Your task to perform on an android device: Clear all items from cart on target.com. Image 0: 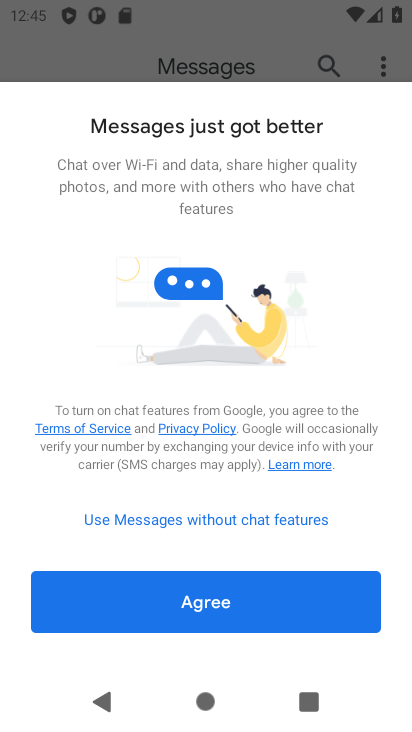
Step 0: press home button
Your task to perform on an android device: Clear all items from cart on target.com. Image 1: 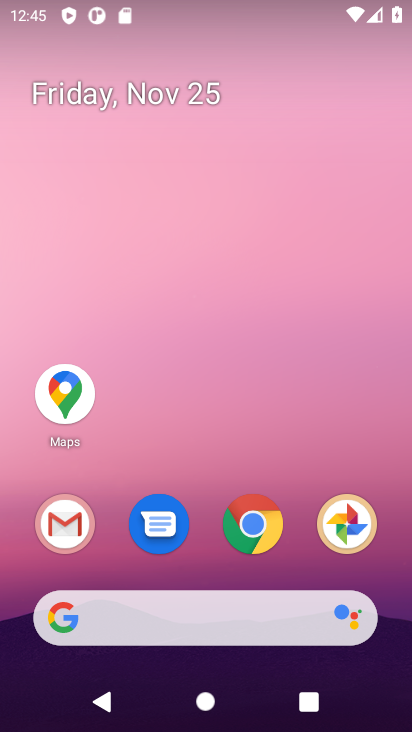
Step 1: click (265, 530)
Your task to perform on an android device: Clear all items from cart on target.com. Image 2: 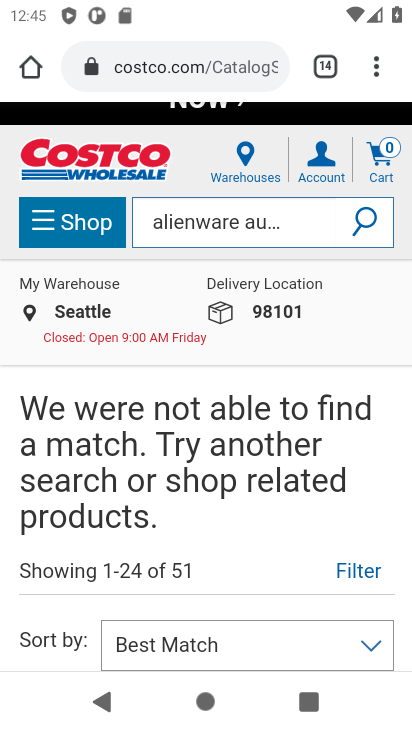
Step 2: click (187, 59)
Your task to perform on an android device: Clear all items from cart on target.com. Image 3: 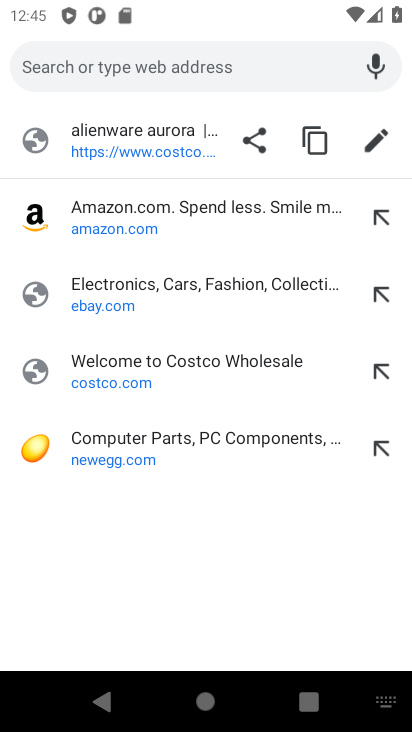
Step 3: type "target.com"
Your task to perform on an android device: Clear all items from cart on target.com. Image 4: 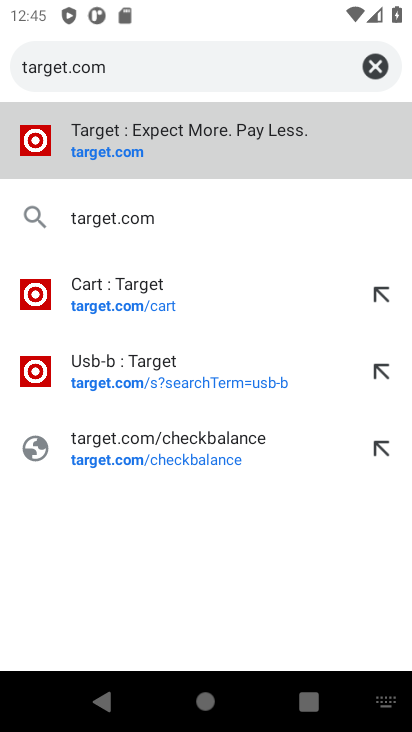
Step 4: click (102, 160)
Your task to perform on an android device: Clear all items from cart on target.com. Image 5: 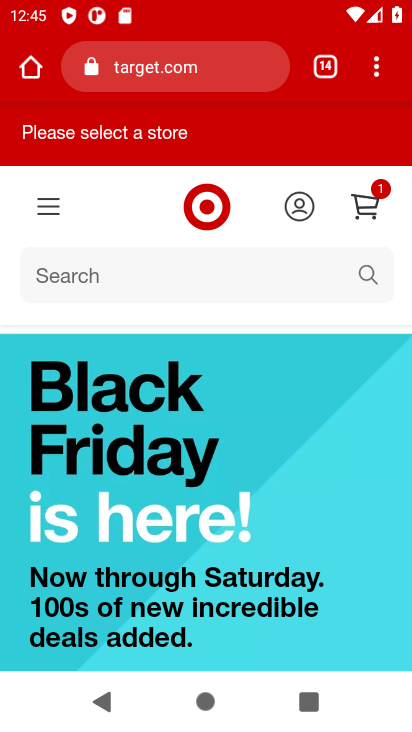
Step 5: click (370, 207)
Your task to perform on an android device: Clear all items from cart on target.com. Image 6: 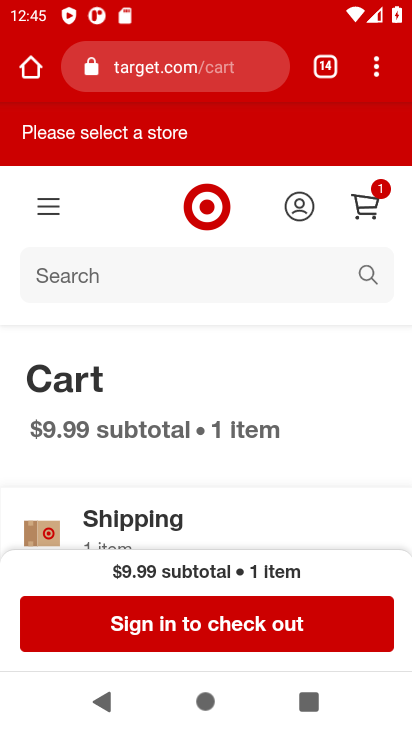
Step 6: drag from (261, 468) to (277, 228)
Your task to perform on an android device: Clear all items from cart on target.com. Image 7: 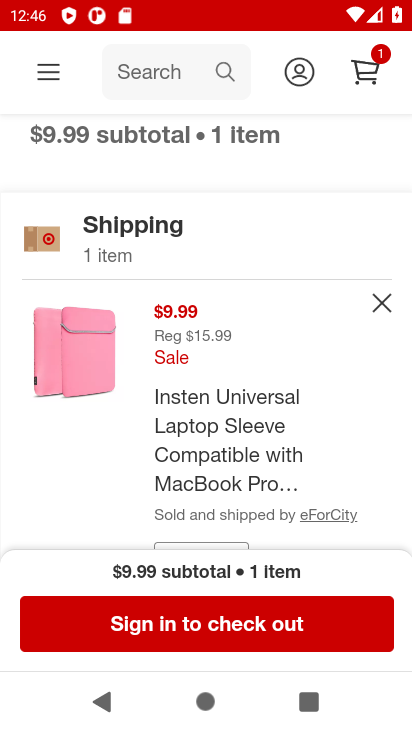
Step 7: click (378, 305)
Your task to perform on an android device: Clear all items from cart on target.com. Image 8: 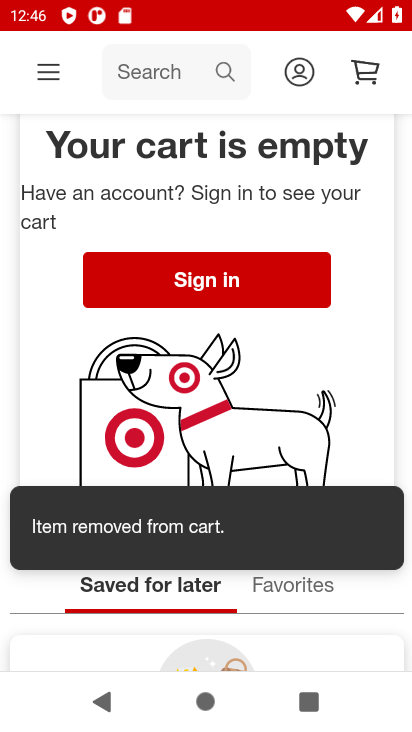
Step 8: task complete